Your task to perform on an android device: change the upload size in google photos Image 0: 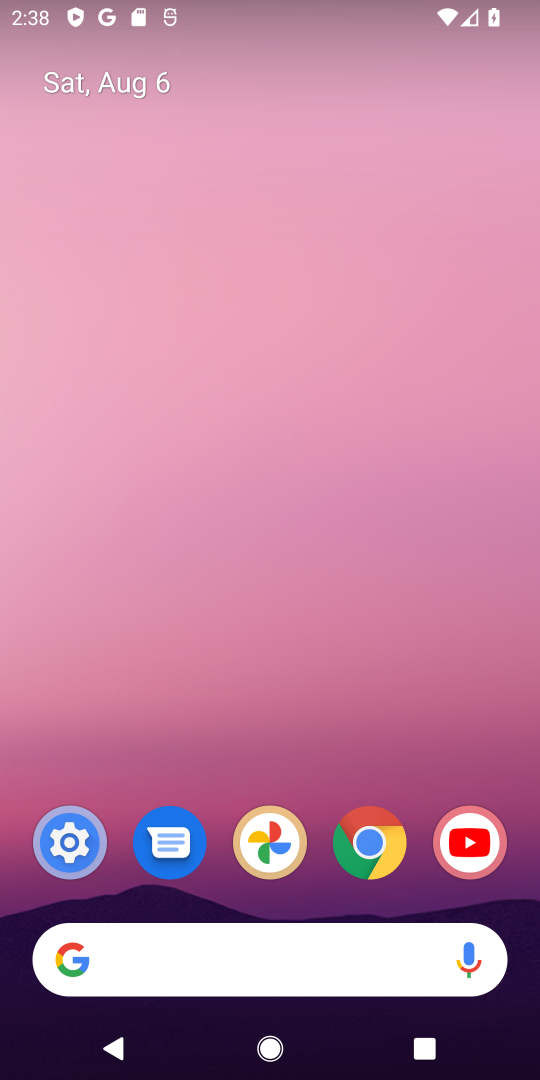
Step 0: click (278, 830)
Your task to perform on an android device: change the upload size in google photos Image 1: 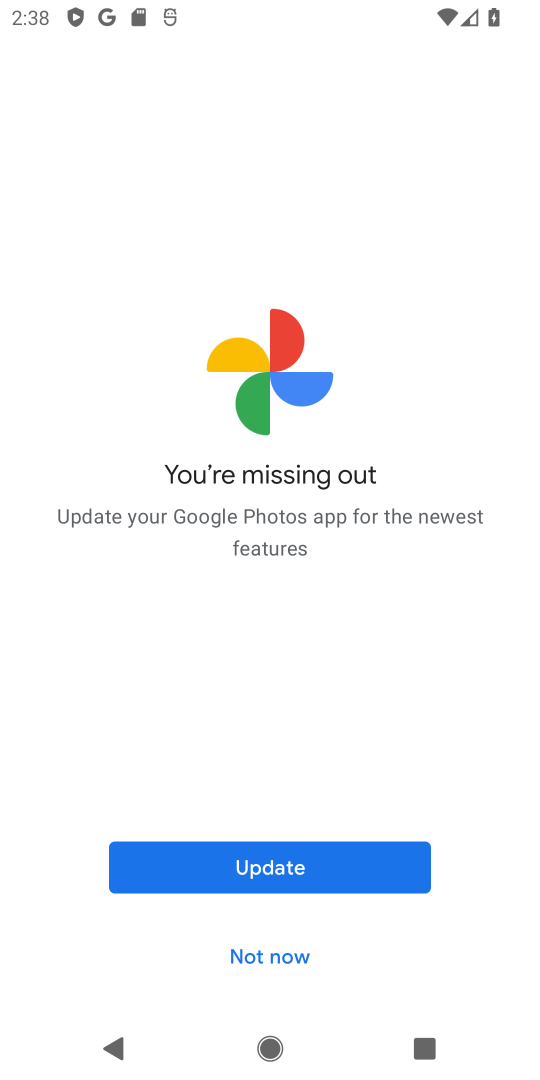
Step 1: click (278, 863)
Your task to perform on an android device: change the upload size in google photos Image 2: 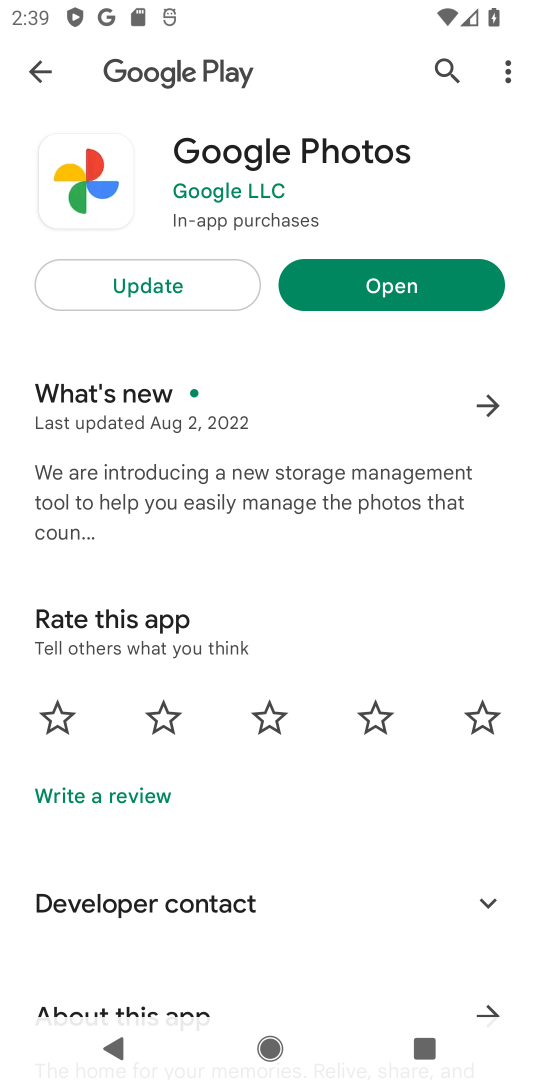
Step 2: click (192, 297)
Your task to perform on an android device: change the upload size in google photos Image 3: 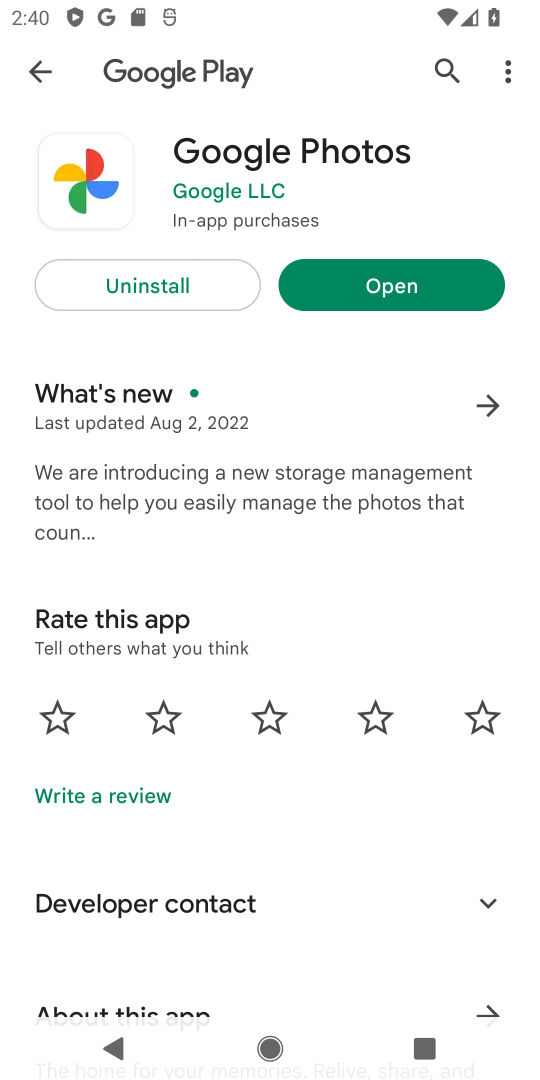
Step 3: click (400, 280)
Your task to perform on an android device: change the upload size in google photos Image 4: 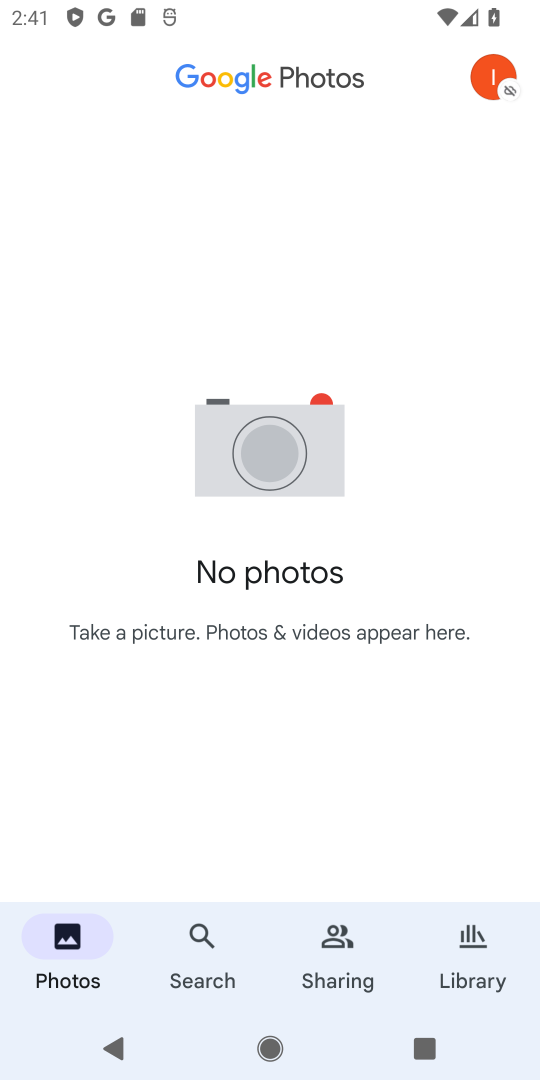
Step 4: task complete